Your task to perform on an android device: create a new album in the google photos Image 0: 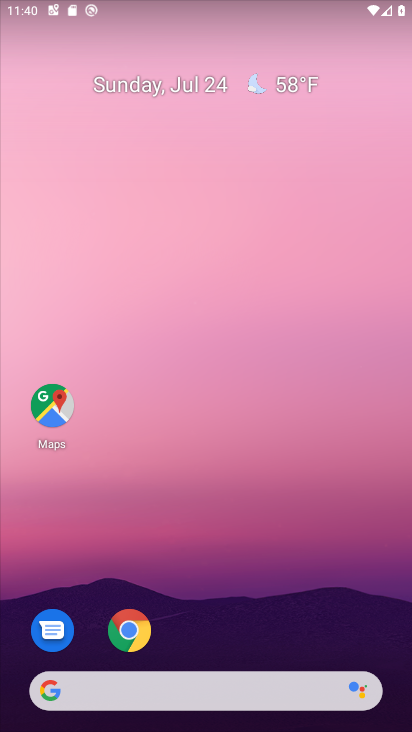
Step 0: drag from (198, 570) to (199, 232)
Your task to perform on an android device: create a new album in the google photos Image 1: 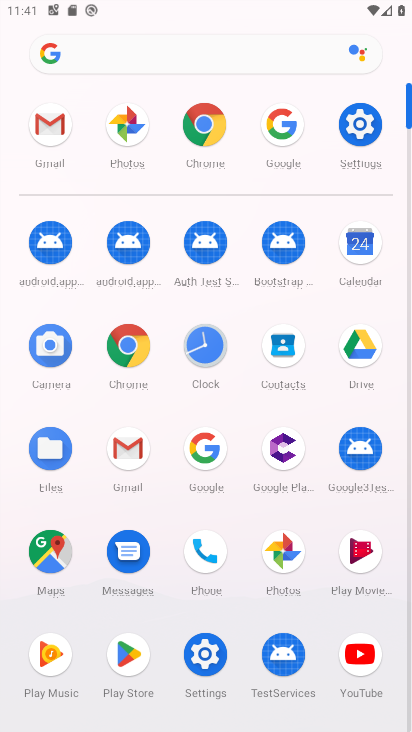
Step 1: click (283, 552)
Your task to perform on an android device: create a new album in the google photos Image 2: 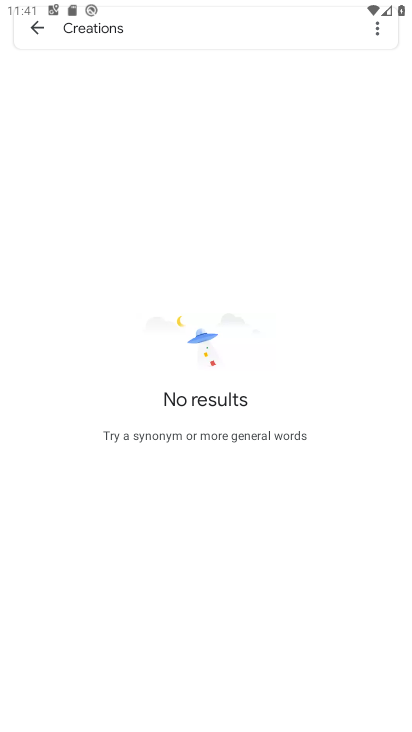
Step 2: click (34, 32)
Your task to perform on an android device: create a new album in the google photos Image 3: 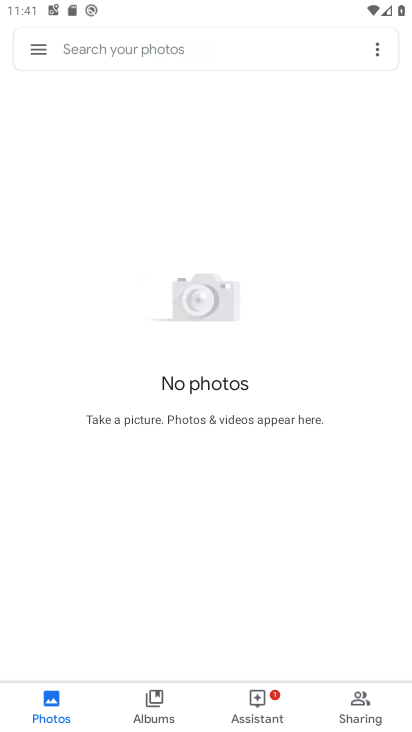
Step 3: click (163, 708)
Your task to perform on an android device: create a new album in the google photos Image 4: 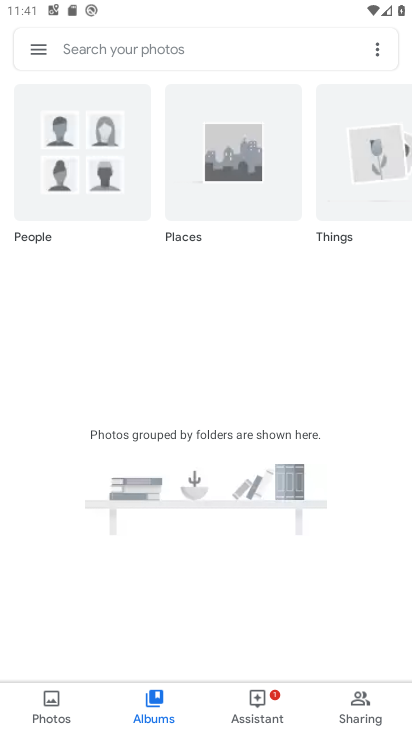
Step 4: task complete